Your task to perform on an android device: What's the weather? Image 0: 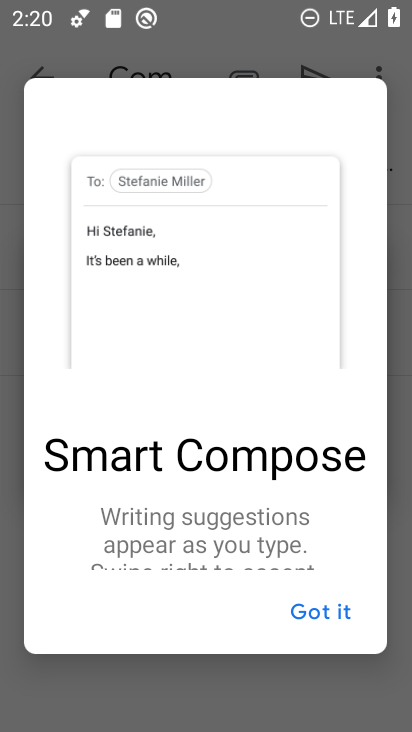
Step 0: press home button
Your task to perform on an android device: What's the weather? Image 1: 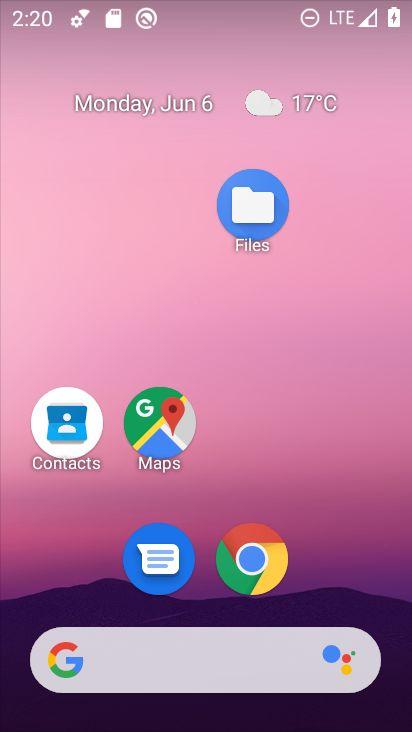
Step 1: drag from (205, 624) to (189, 261)
Your task to perform on an android device: What's the weather? Image 2: 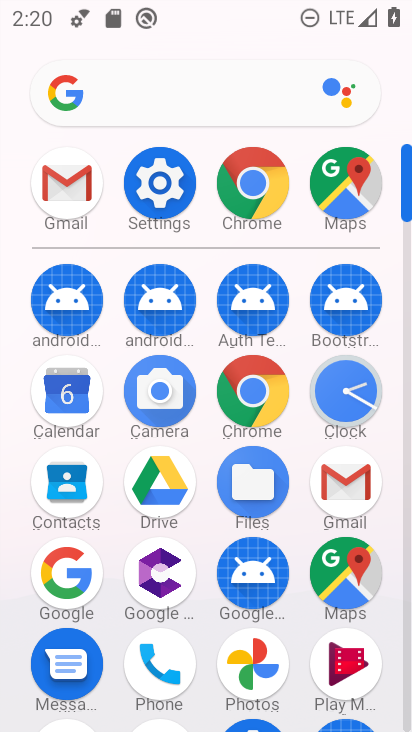
Step 2: click (87, 592)
Your task to perform on an android device: What's the weather? Image 3: 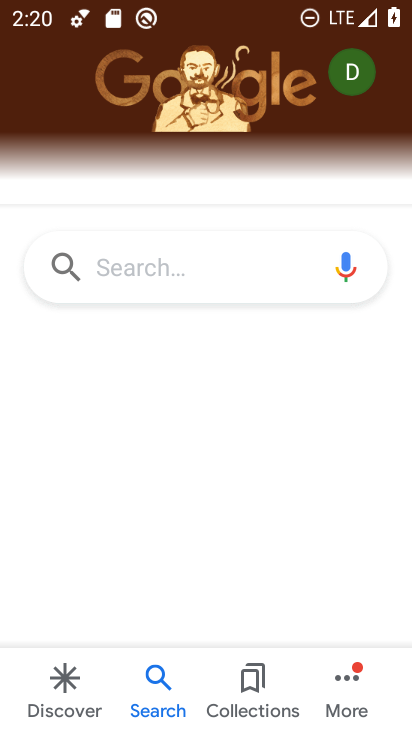
Step 3: click (181, 282)
Your task to perform on an android device: What's the weather? Image 4: 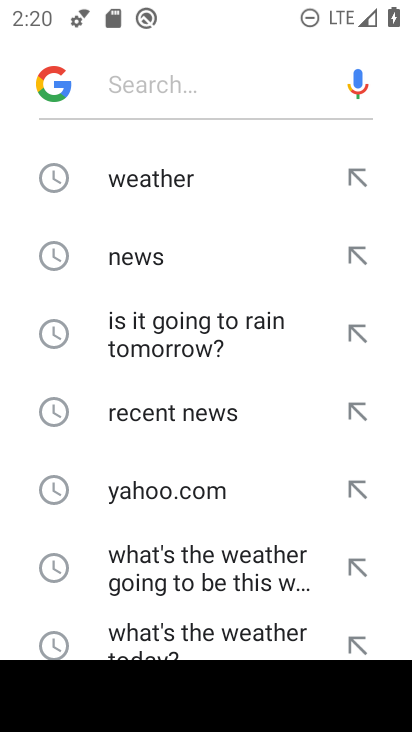
Step 4: click (170, 193)
Your task to perform on an android device: What's the weather? Image 5: 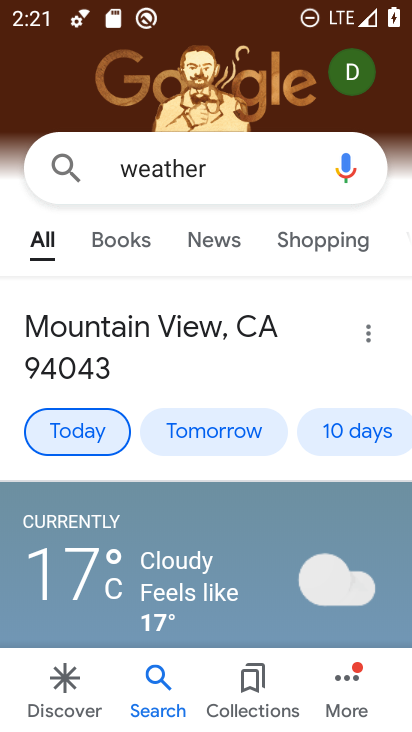
Step 5: task complete